Your task to perform on an android device: change the clock display to show seconds Image 0: 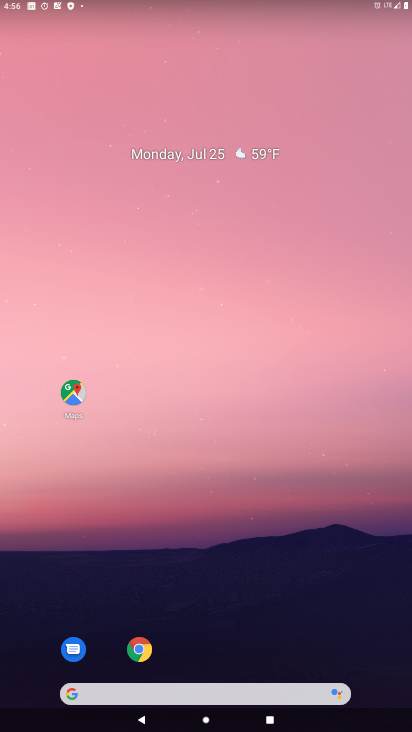
Step 0: drag from (257, 645) to (200, 4)
Your task to perform on an android device: change the clock display to show seconds Image 1: 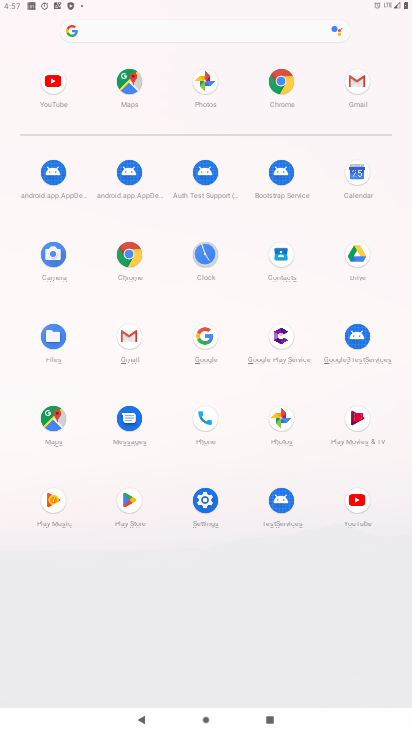
Step 1: click (200, 261)
Your task to perform on an android device: change the clock display to show seconds Image 2: 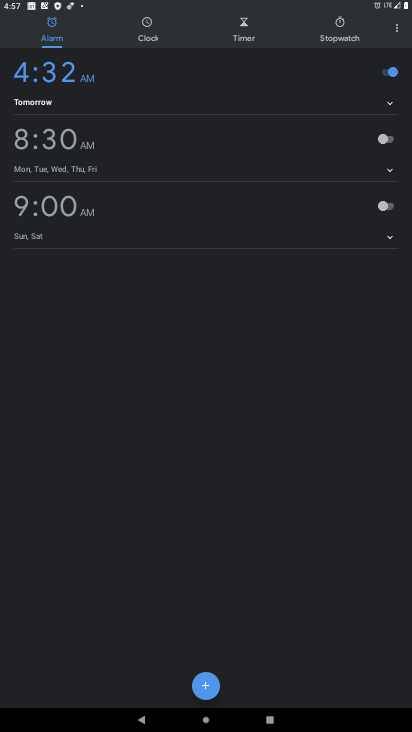
Step 2: click (399, 28)
Your task to perform on an android device: change the clock display to show seconds Image 3: 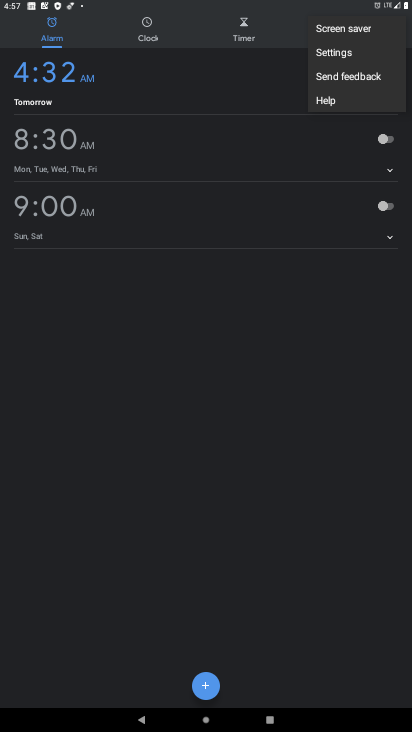
Step 3: click (348, 56)
Your task to perform on an android device: change the clock display to show seconds Image 4: 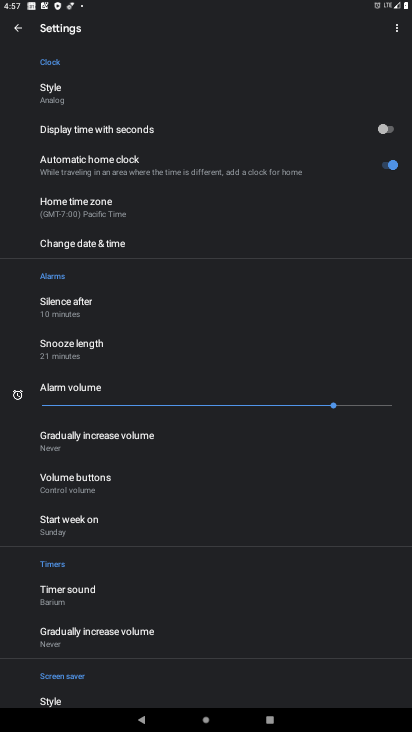
Step 4: click (380, 137)
Your task to perform on an android device: change the clock display to show seconds Image 5: 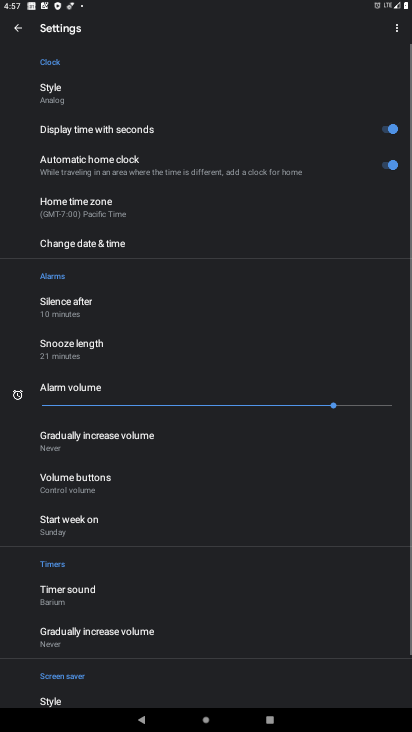
Step 5: task complete